Your task to perform on an android device: Go to network settings Image 0: 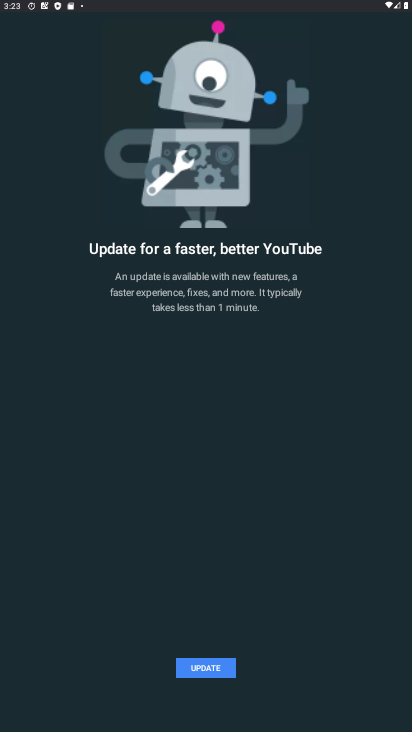
Step 0: press home button
Your task to perform on an android device: Go to network settings Image 1: 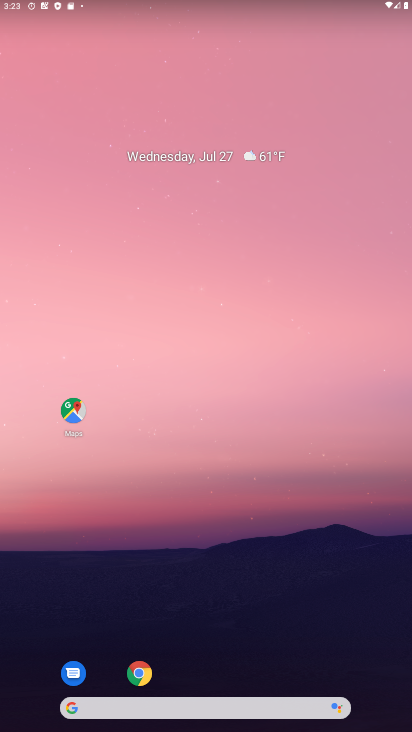
Step 1: drag from (8, 712) to (176, 158)
Your task to perform on an android device: Go to network settings Image 2: 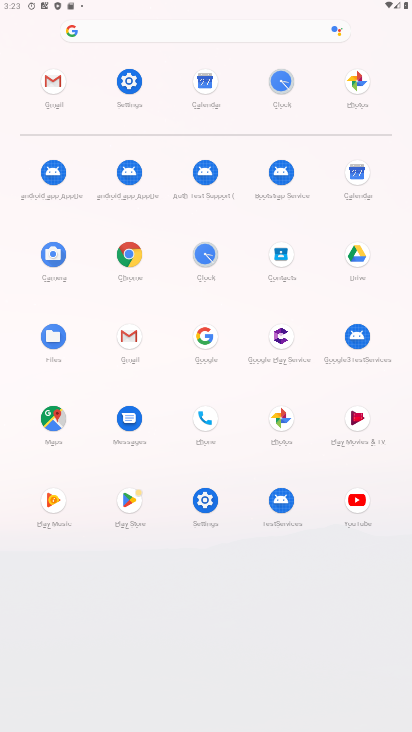
Step 2: click (199, 504)
Your task to perform on an android device: Go to network settings Image 3: 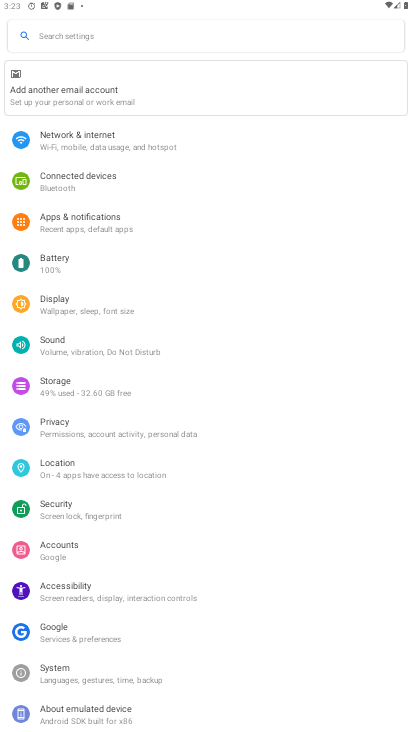
Step 3: click (81, 129)
Your task to perform on an android device: Go to network settings Image 4: 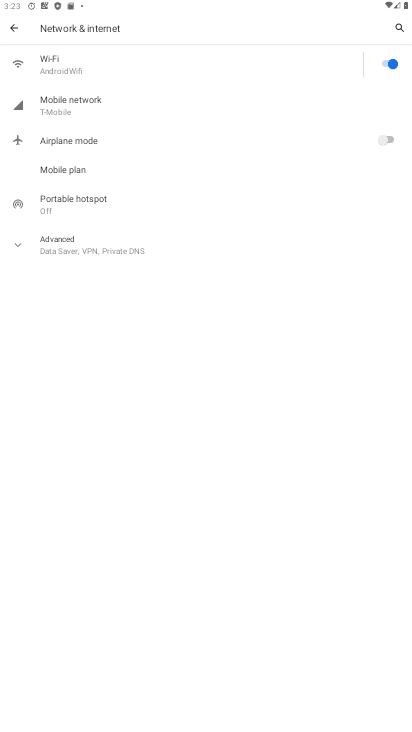
Step 4: task complete